Your task to perform on an android device: open app "VLC for Android" (install if not already installed) and go to login screen Image 0: 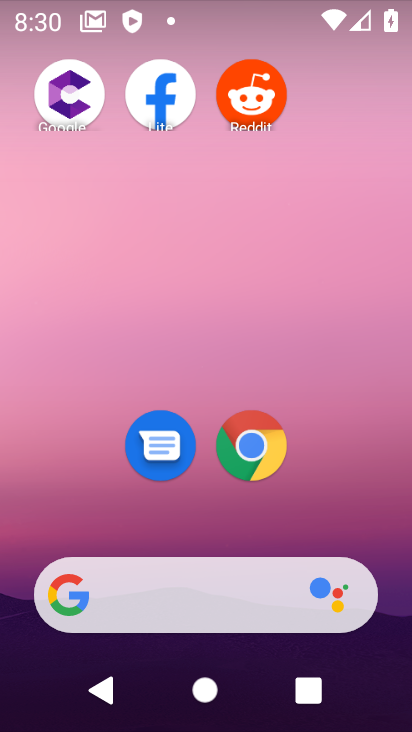
Step 0: drag from (207, 543) to (393, 329)
Your task to perform on an android device: open app "VLC for Android" (install if not already installed) and go to login screen Image 1: 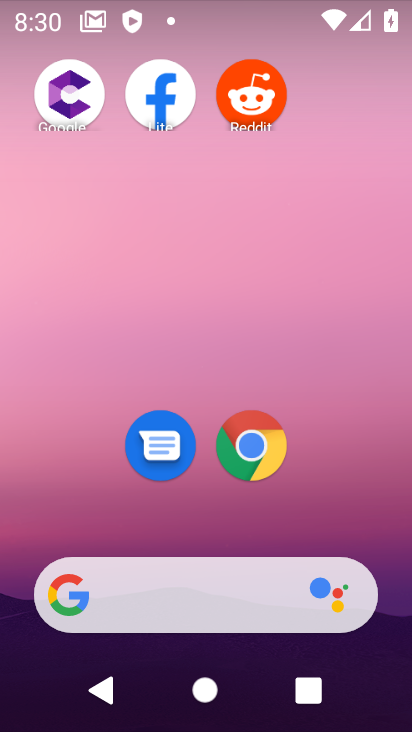
Step 1: drag from (237, 532) to (204, 7)
Your task to perform on an android device: open app "VLC for Android" (install if not already installed) and go to login screen Image 2: 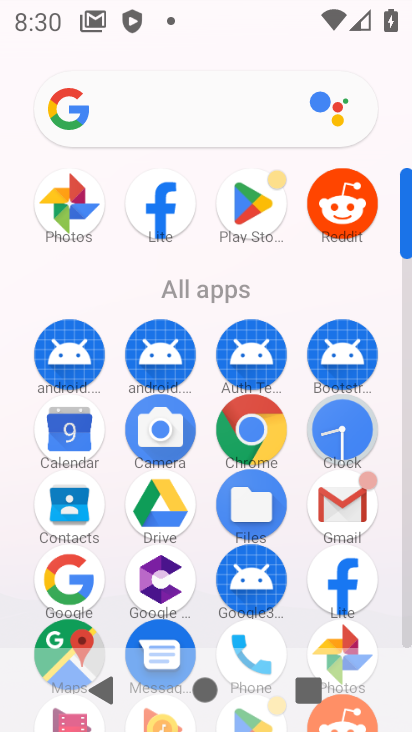
Step 2: click (252, 199)
Your task to perform on an android device: open app "VLC for Android" (install if not already installed) and go to login screen Image 3: 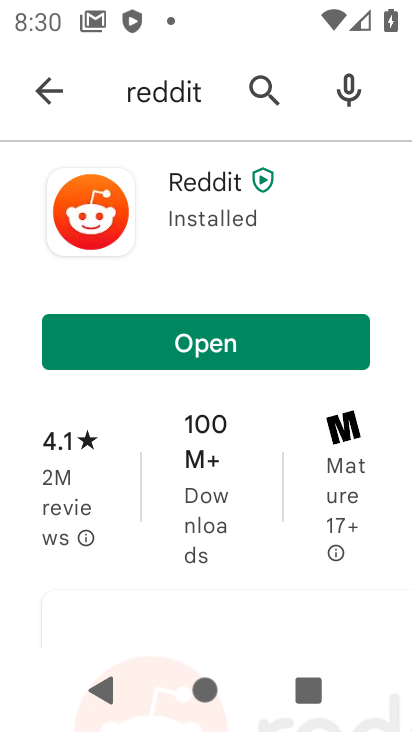
Step 3: click (37, 87)
Your task to perform on an android device: open app "VLC for Android" (install if not already installed) and go to login screen Image 4: 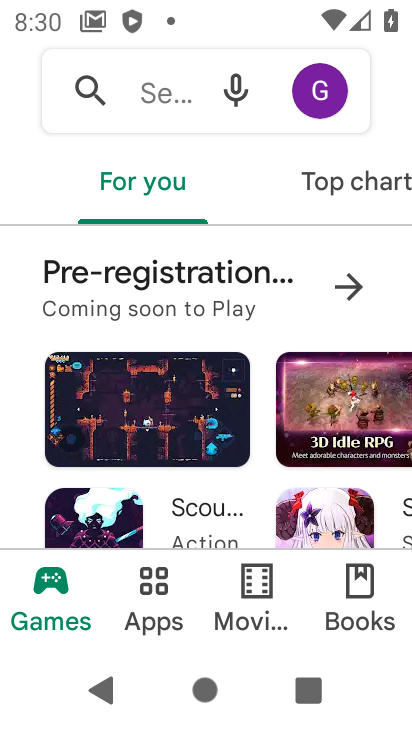
Step 4: click (141, 97)
Your task to perform on an android device: open app "VLC for Android" (install if not already installed) and go to login screen Image 5: 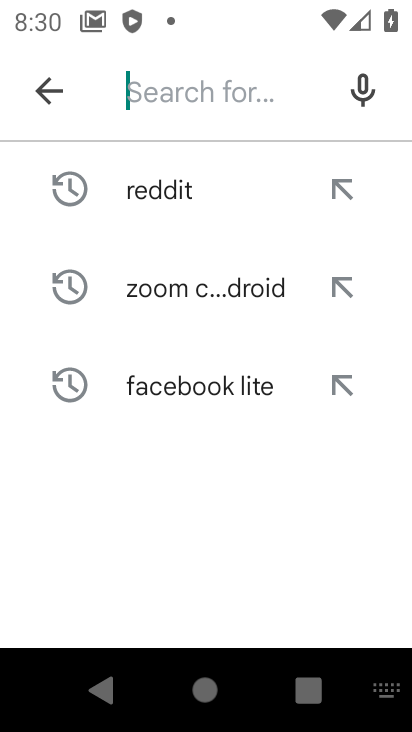
Step 5: type "VLC for Android"
Your task to perform on an android device: open app "VLC for Android" (install if not already installed) and go to login screen Image 6: 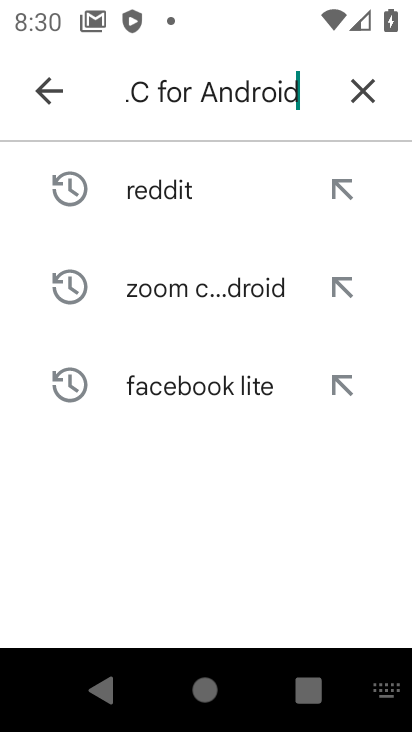
Step 6: type ""
Your task to perform on an android device: open app "VLC for Android" (install if not already installed) and go to login screen Image 7: 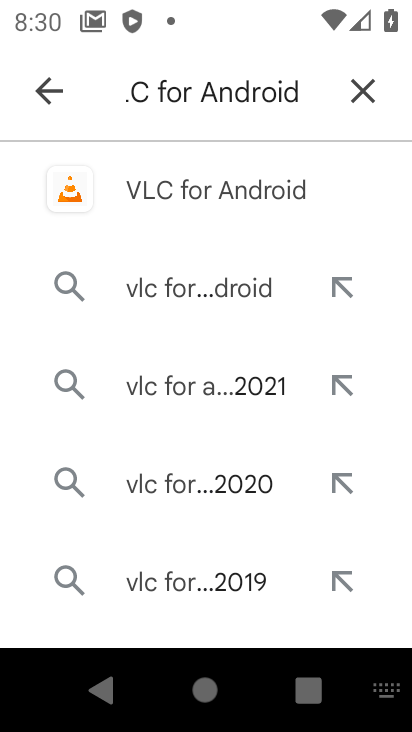
Step 7: click (216, 185)
Your task to perform on an android device: open app "VLC for Android" (install if not already installed) and go to login screen Image 8: 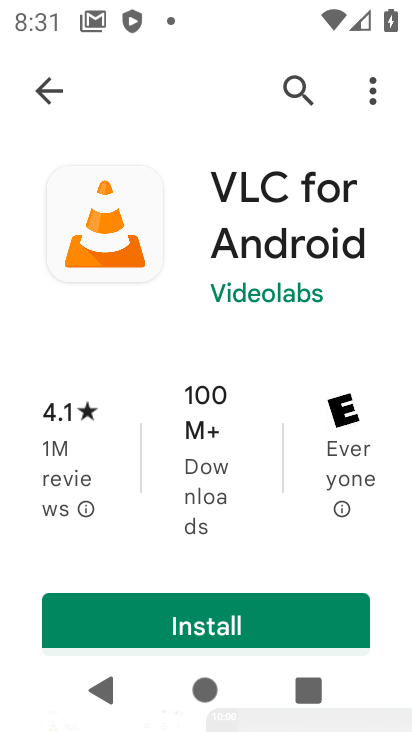
Step 8: click (235, 622)
Your task to perform on an android device: open app "VLC for Android" (install if not already installed) and go to login screen Image 9: 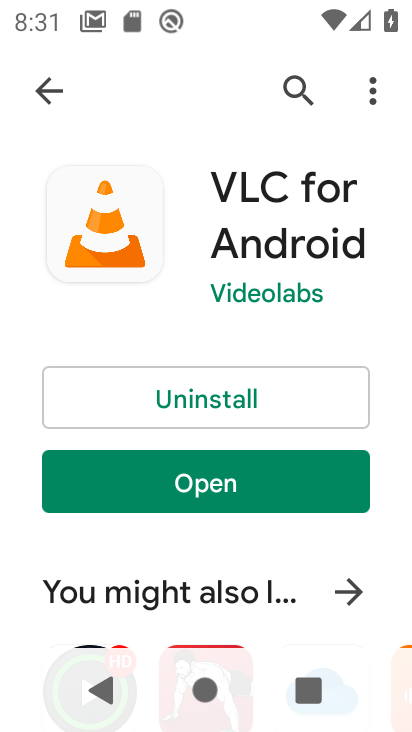
Step 9: click (230, 472)
Your task to perform on an android device: open app "VLC for Android" (install if not already installed) and go to login screen Image 10: 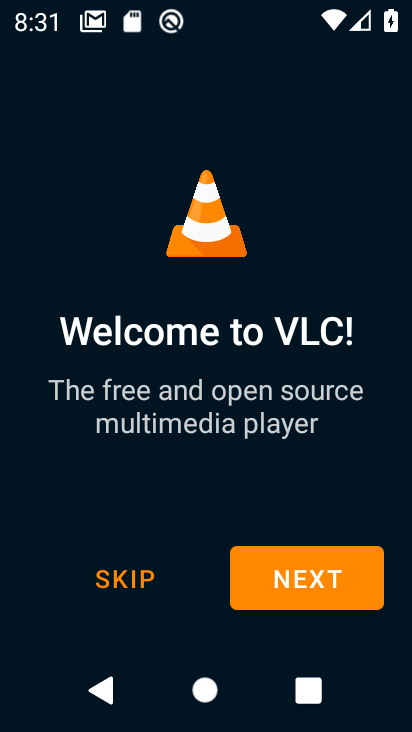
Step 10: click (325, 579)
Your task to perform on an android device: open app "VLC for Android" (install if not already installed) and go to login screen Image 11: 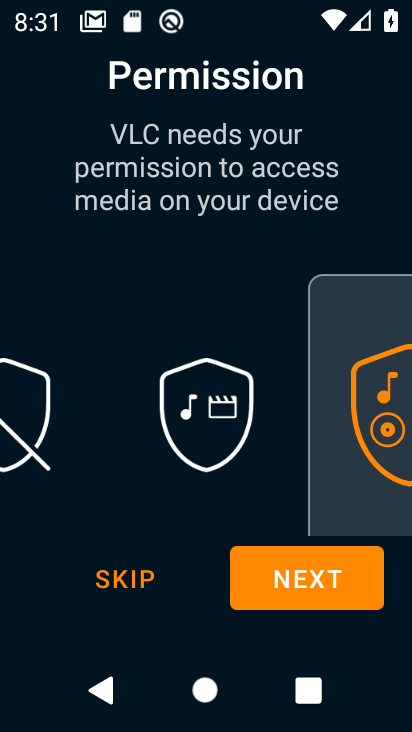
Step 11: click (322, 577)
Your task to perform on an android device: open app "VLC for Android" (install if not already installed) and go to login screen Image 12: 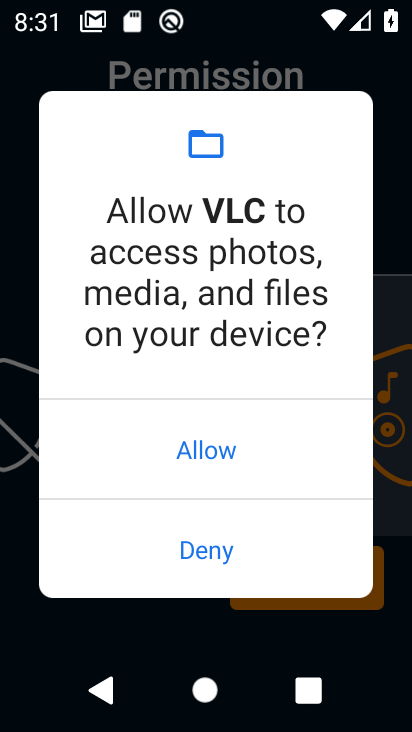
Step 12: click (216, 458)
Your task to perform on an android device: open app "VLC for Android" (install if not already installed) and go to login screen Image 13: 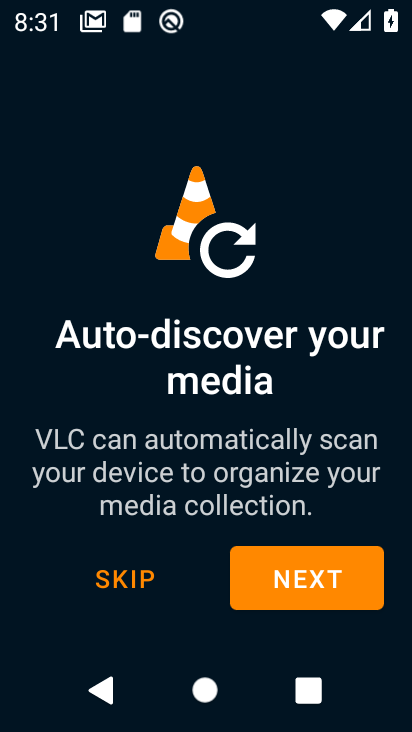
Step 13: click (255, 576)
Your task to perform on an android device: open app "VLC for Android" (install if not already installed) and go to login screen Image 14: 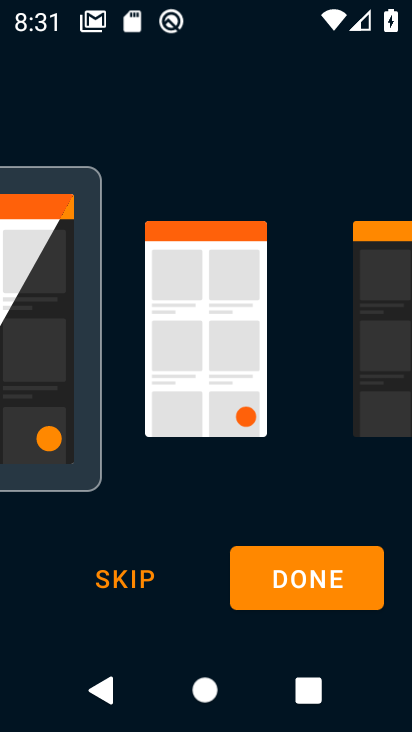
Step 14: click (256, 576)
Your task to perform on an android device: open app "VLC for Android" (install if not already installed) and go to login screen Image 15: 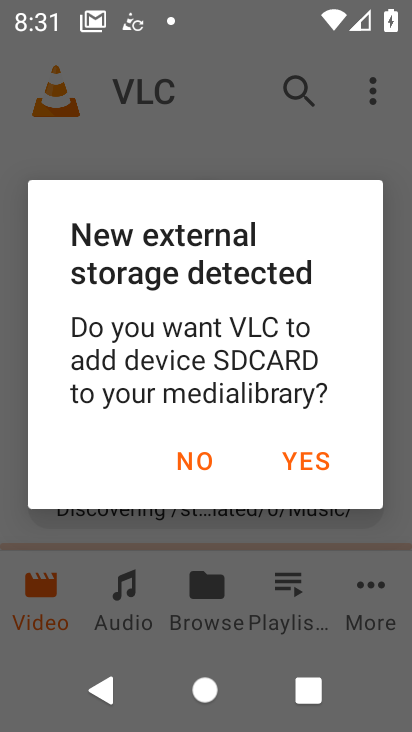
Step 15: click (307, 465)
Your task to perform on an android device: open app "VLC for Android" (install if not already installed) and go to login screen Image 16: 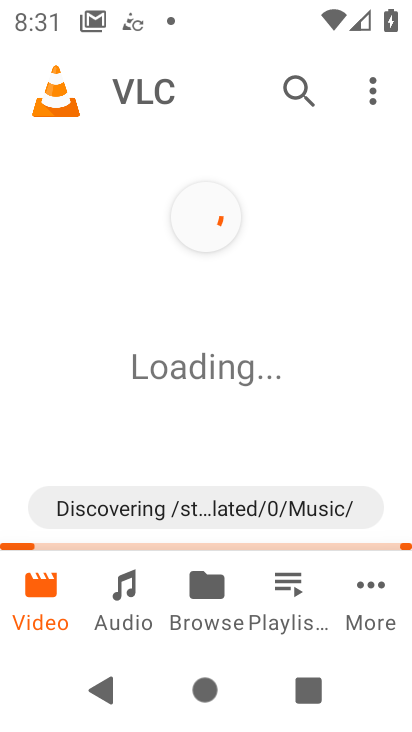
Step 16: click (373, 87)
Your task to perform on an android device: open app "VLC for Android" (install if not already installed) and go to login screen Image 17: 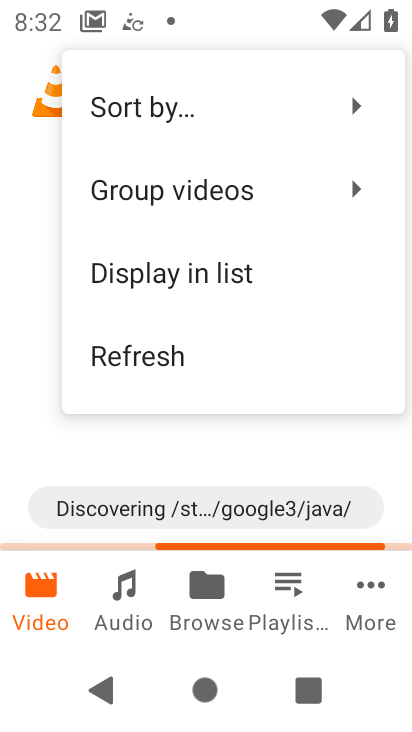
Step 17: click (329, 584)
Your task to perform on an android device: open app "VLC for Android" (install if not already installed) and go to login screen Image 18: 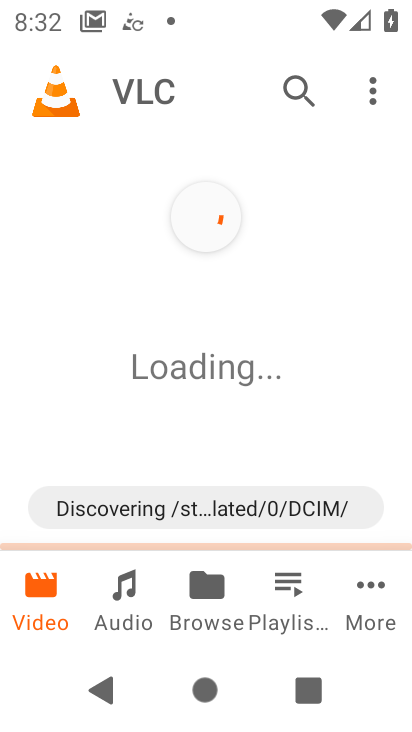
Step 18: click (364, 578)
Your task to perform on an android device: open app "VLC for Android" (install if not already installed) and go to login screen Image 19: 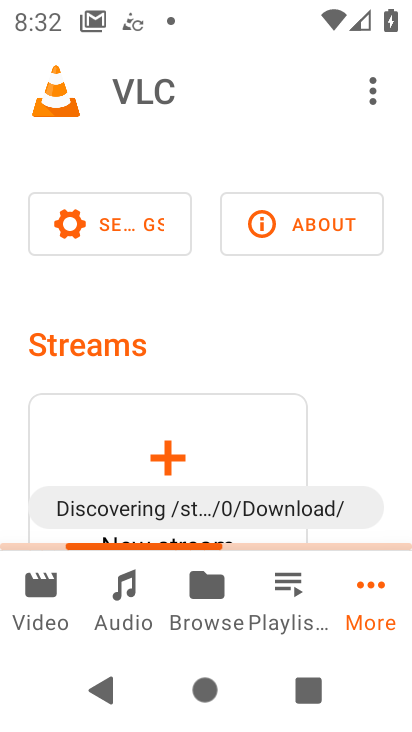
Step 19: click (372, 85)
Your task to perform on an android device: open app "VLC for Android" (install if not already installed) and go to login screen Image 20: 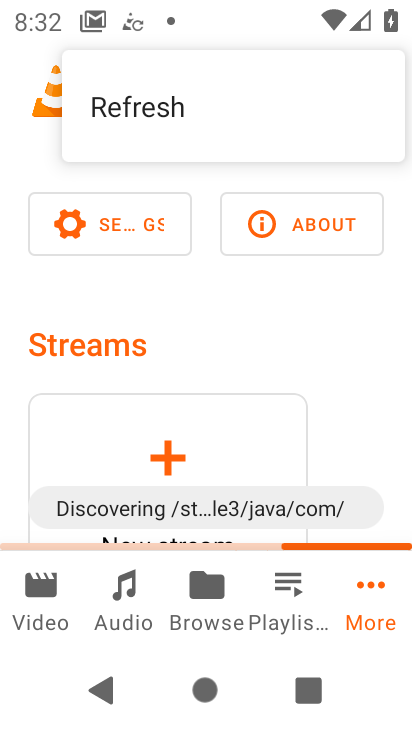
Step 20: click (108, 201)
Your task to perform on an android device: open app "VLC for Android" (install if not already installed) and go to login screen Image 21: 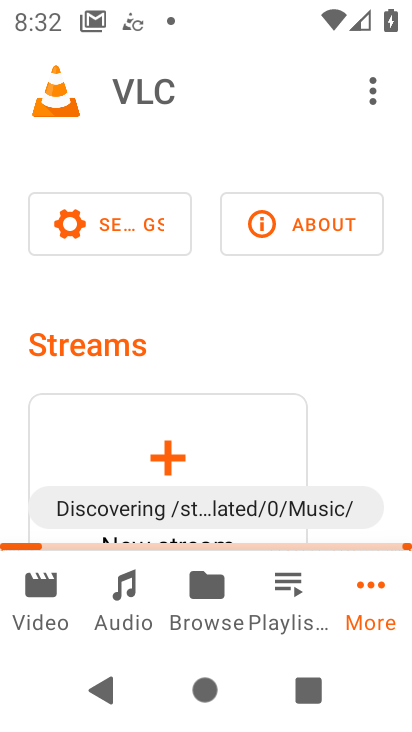
Step 21: click (94, 231)
Your task to perform on an android device: open app "VLC for Android" (install if not already installed) and go to login screen Image 22: 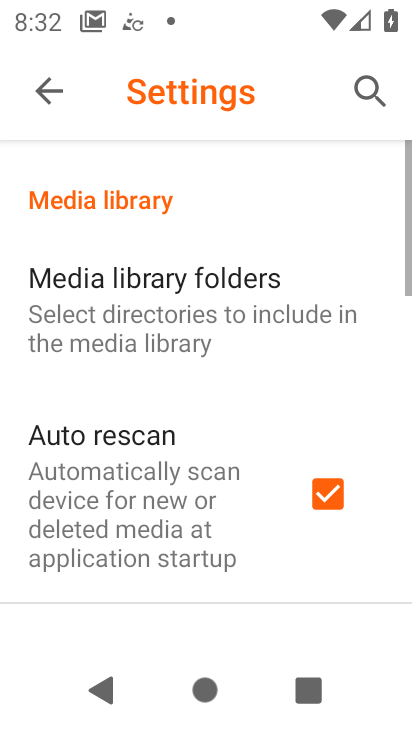
Step 22: drag from (120, 525) to (107, 80)
Your task to perform on an android device: open app "VLC for Android" (install if not already installed) and go to login screen Image 23: 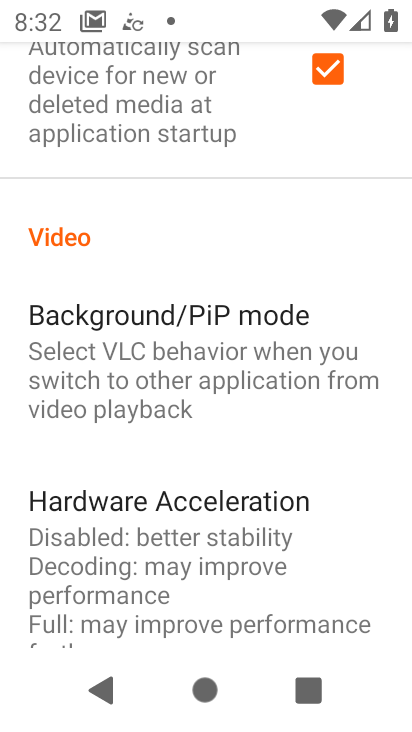
Step 23: drag from (86, 505) to (114, 50)
Your task to perform on an android device: open app "VLC for Android" (install if not already installed) and go to login screen Image 24: 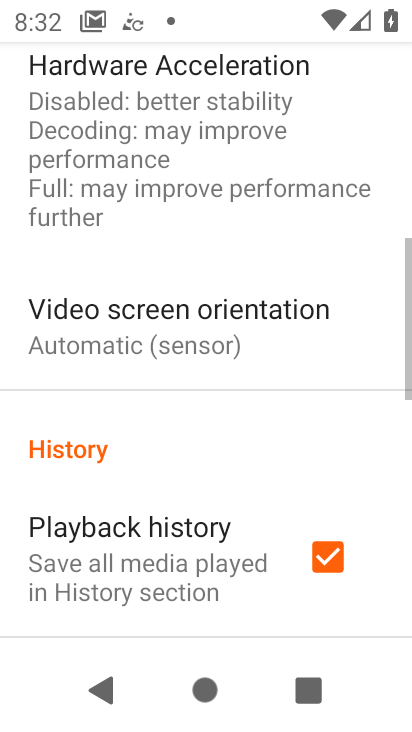
Step 24: drag from (114, 547) to (110, 130)
Your task to perform on an android device: open app "VLC for Android" (install if not already installed) and go to login screen Image 25: 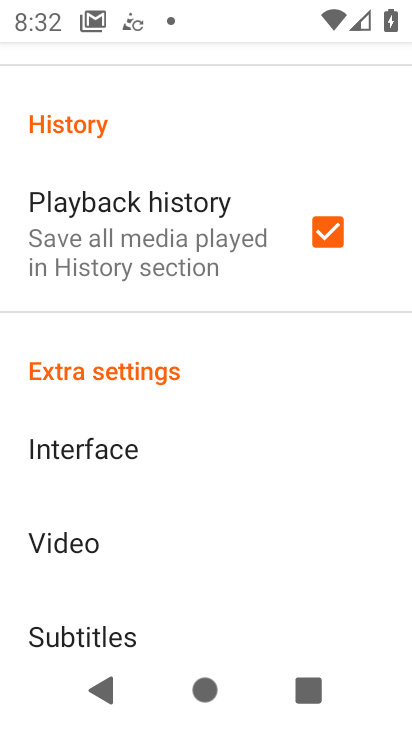
Step 25: drag from (148, 507) to (120, 94)
Your task to perform on an android device: open app "VLC for Android" (install if not already installed) and go to login screen Image 26: 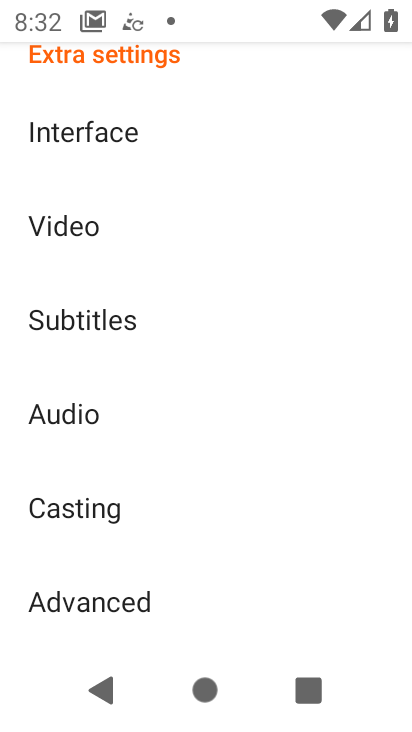
Step 26: drag from (178, 503) to (167, 70)
Your task to perform on an android device: open app "VLC for Android" (install if not already installed) and go to login screen Image 27: 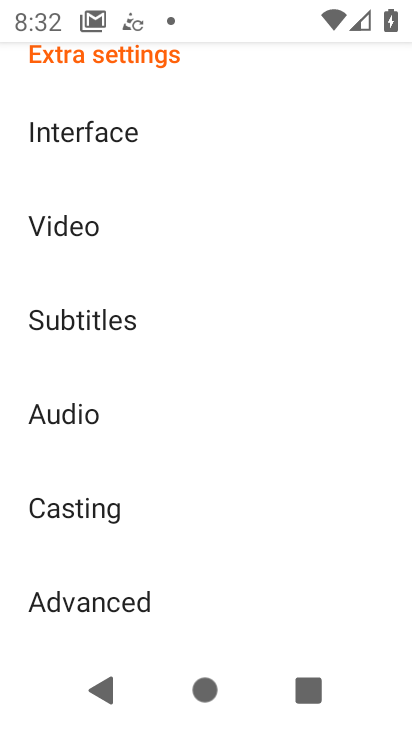
Step 27: press back button
Your task to perform on an android device: open app "VLC for Android" (install if not already installed) and go to login screen Image 28: 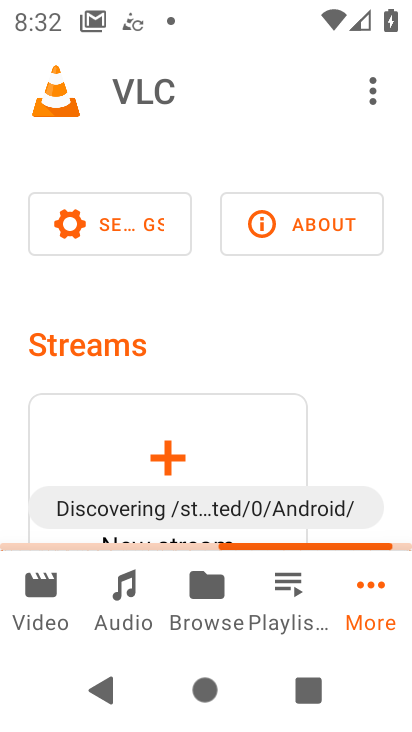
Step 28: drag from (188, 420) to (191, 15)
Your task to perform on an android device: open app "VLC for Android" (install if not already installed) and go to login screen Image 29: 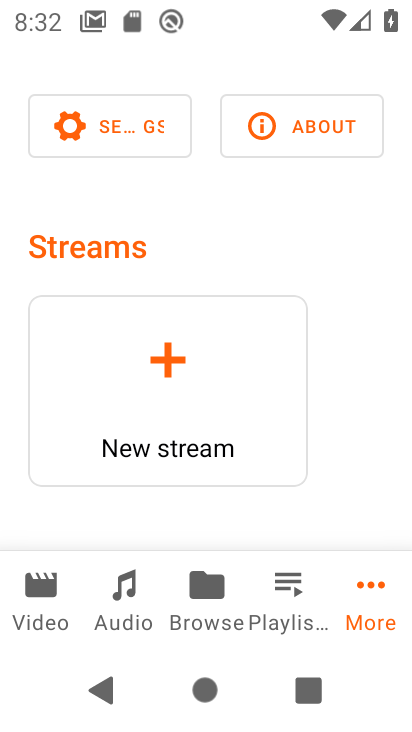
Step 29: click (287, 122)
Your task to perform on an android device: open app "VLC for Android" (install if not already installed) and go to login screen Image 30: 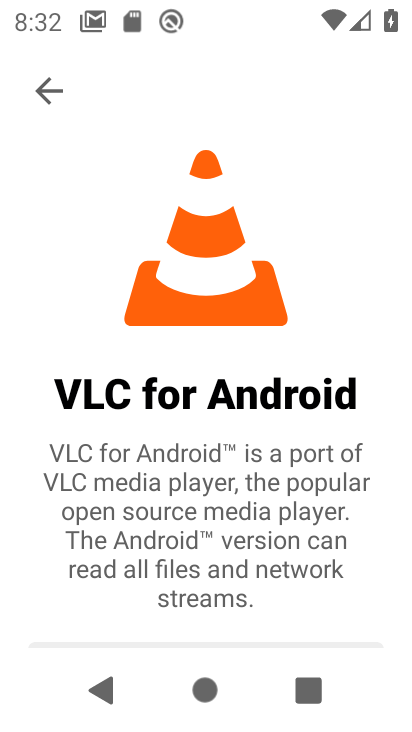
Step 30: drag from (238, 588) to (230, 72)
Your task to perform on an android device: open app "VLC for Android" (install if not already installed) and go to login screen Image 31: 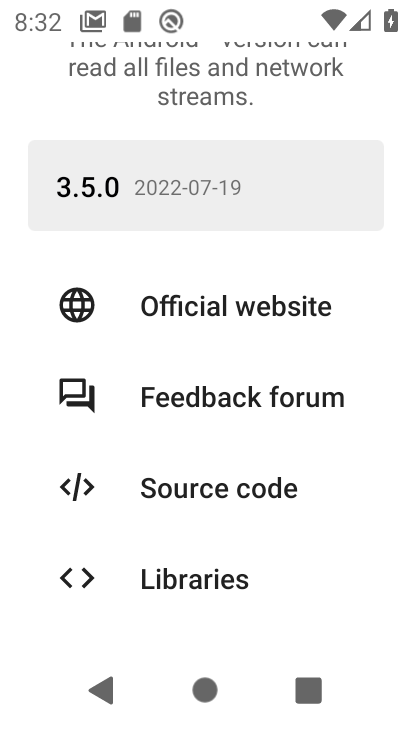
Step 31: drag from (223, 512) to (218, 80)
Your task to perform on an android device: open app "VLC for Android" (install if not already installed) and go to login screen Image 32: 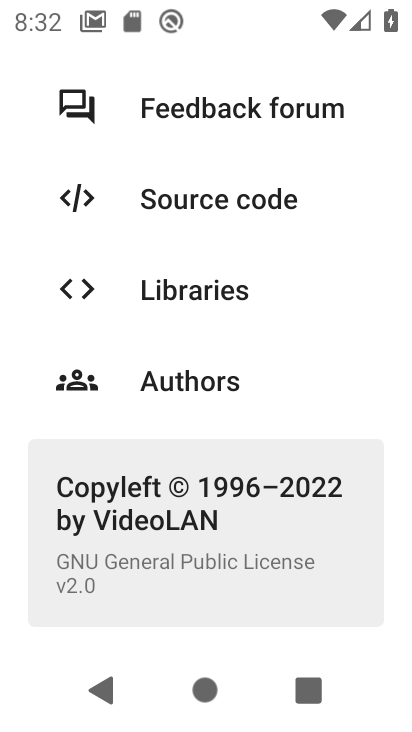
Step 32: drag from (195, 474) to (149, 40)
Your task to perform on an android device: open app "VLC for Android" (install if not already installed) and go to login screen Image 33: 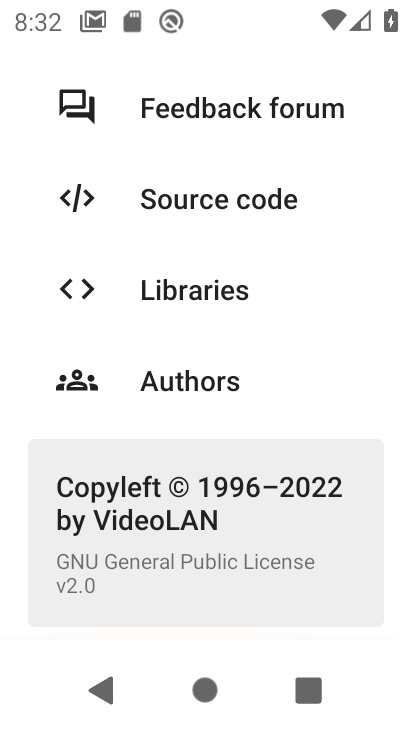
Step 33: click (174, 389)
Your task to perform on an android device: open app "VLC for Android" (install if not already installed) and go to login screen Image 34: 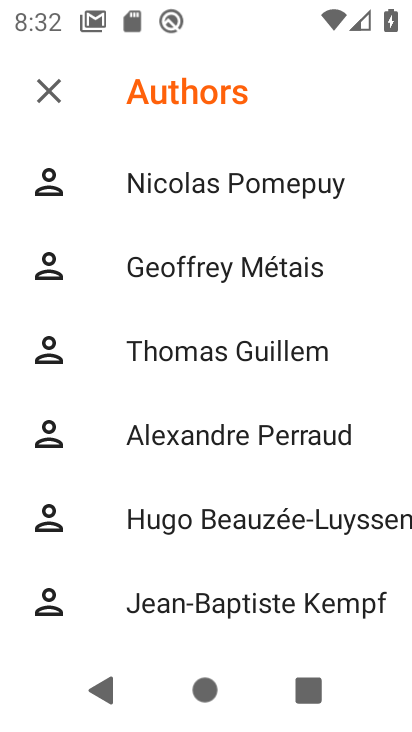
Step 34: task complete